Your task to perform on an android device: Check the weather Image 0: 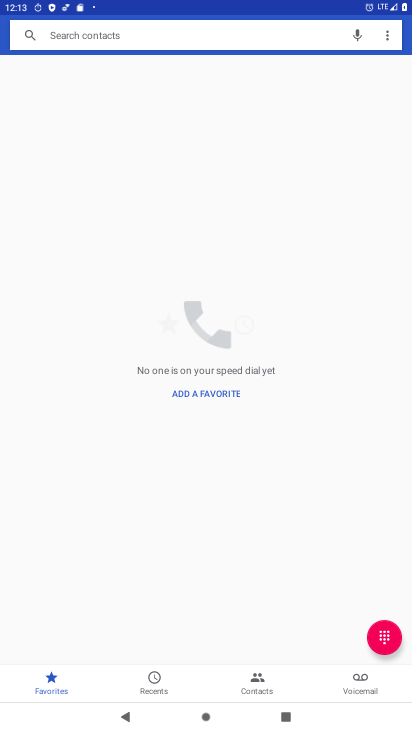
Step 0: press home button
Your task to perform on an android device: Check the weather Image 1: 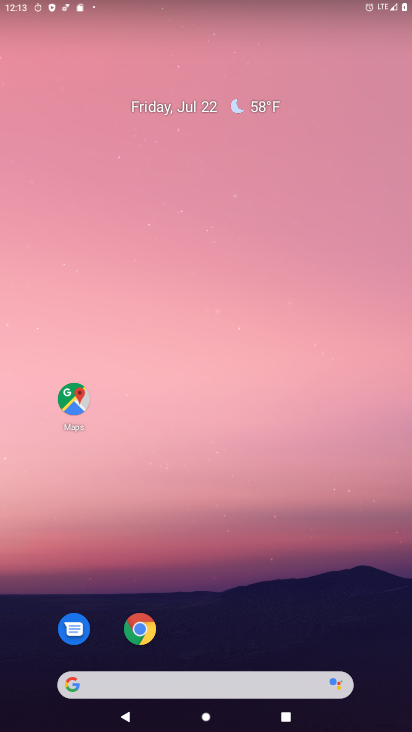
Step 1: click (255, 688)
Your task to perform on an android device: Check the weather Image 2: 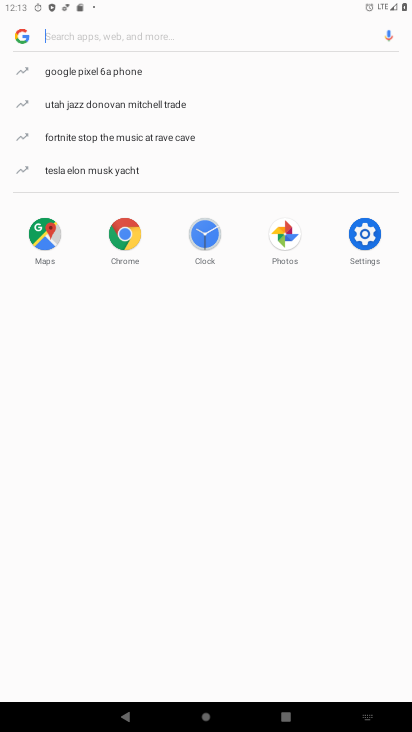
Step 2: type "weather"
Your task to perform on an android device: Check the weather Image 3: 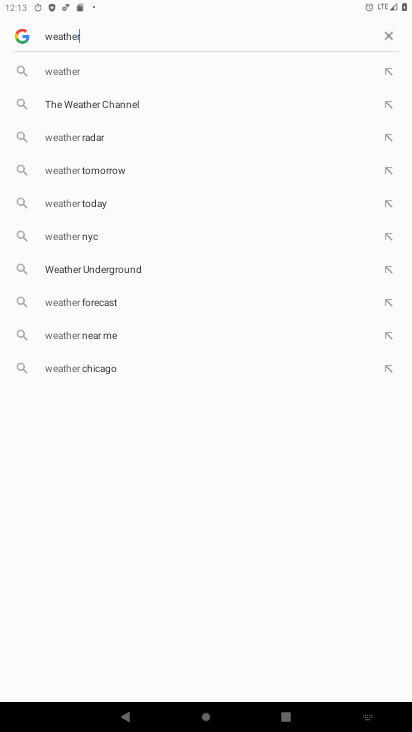
Step 3: click (89, 85)
Your task to perform on an android device: Check the weather Image 4: 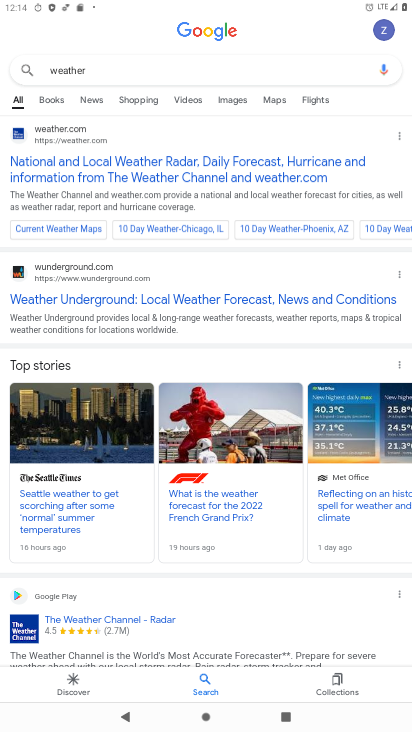
Step 4: task complete